Your task to perform on an android device: open sync settings in chrome Image 0: 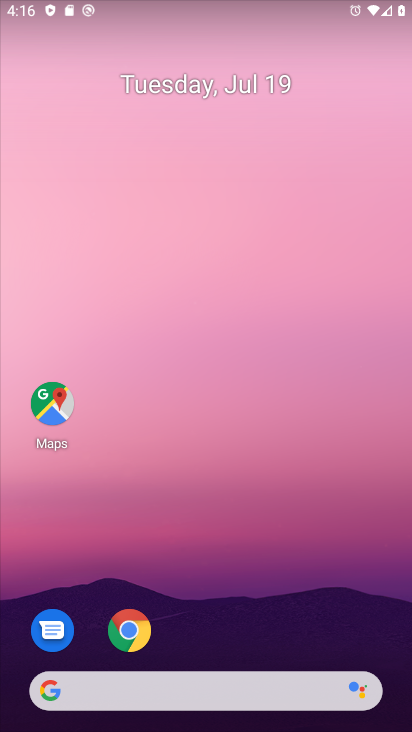
Step 0: click (124, 629)
Your task to perform on an android device: open sync settings in chrome Image 1: 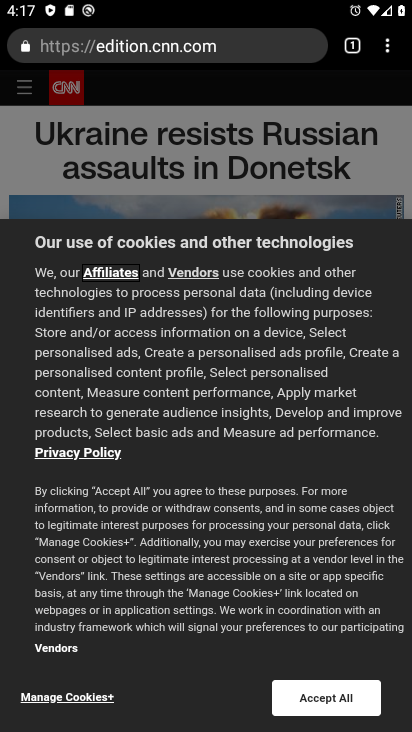
Step 1: click (391, 47)
Your task to perform on an android device: open sync settings in chrome Image 2: 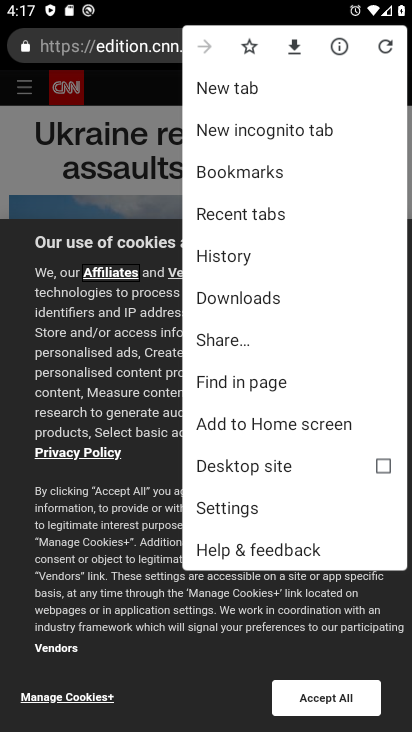
Step 2: click (238, 502)
Your task to perform on an android device: open sync settings in chrome Image 3: 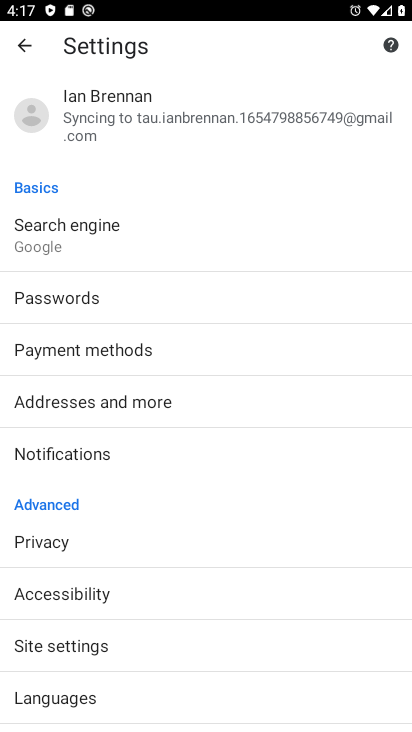
Step 3: click (105, 106)
Your task to perform on an android device: open sync settings in chrome Image 4: 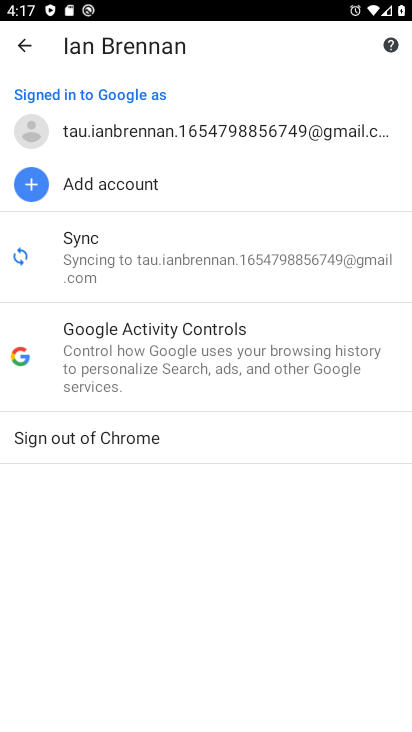
Step 4: click (86, 269)
Your task to perform on an android device: open sync settings in chrome Image 5: 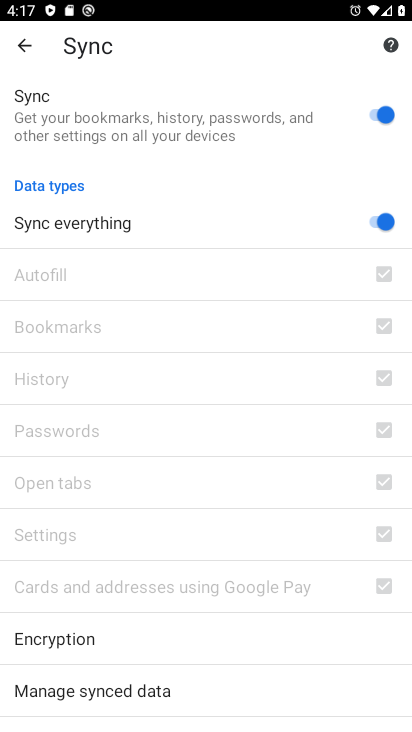
Step 5: task complete